Your task to perform on an android device: find photos in the google photos app Image 0: 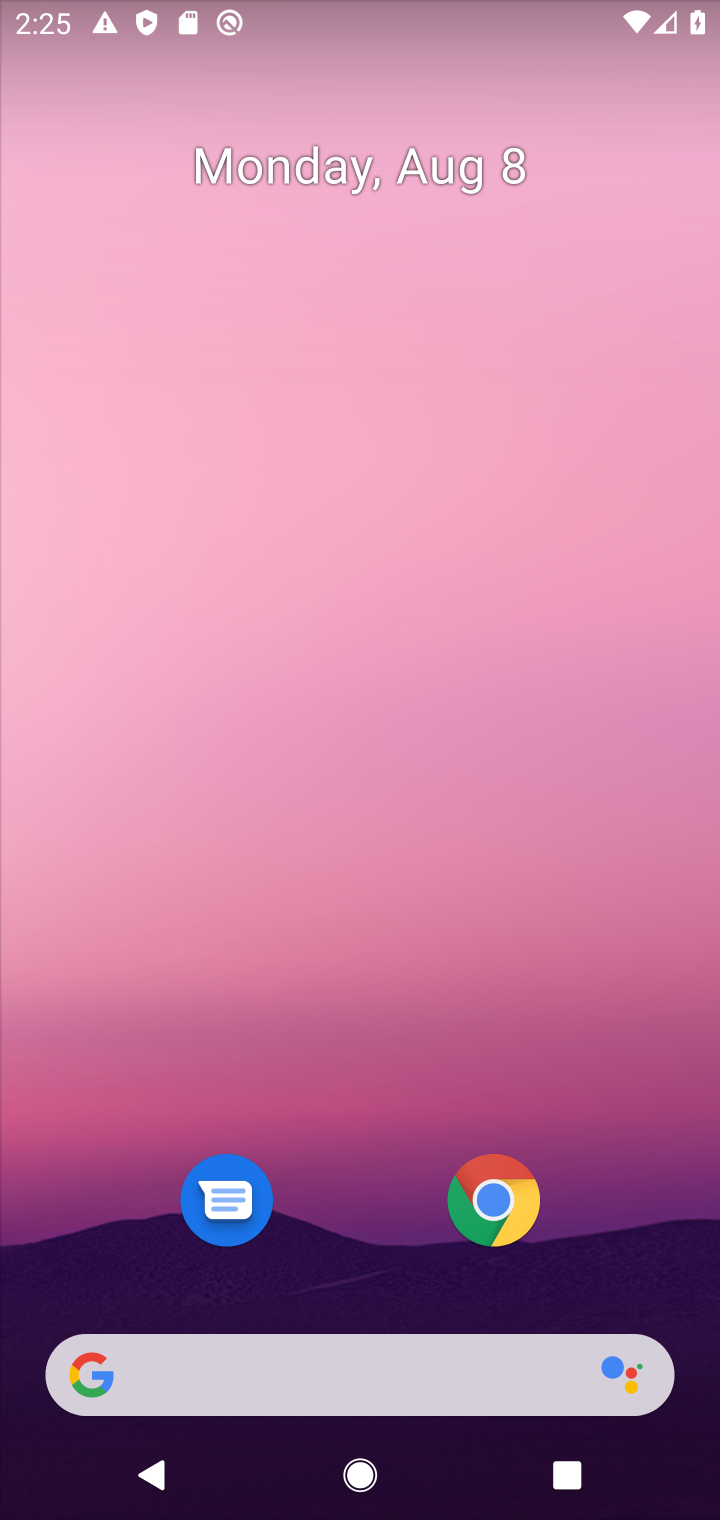
Step 0: drag from (382, 956) to (492, 80)
Your task to perform on an android device: find photos in the google photos app Image 1: 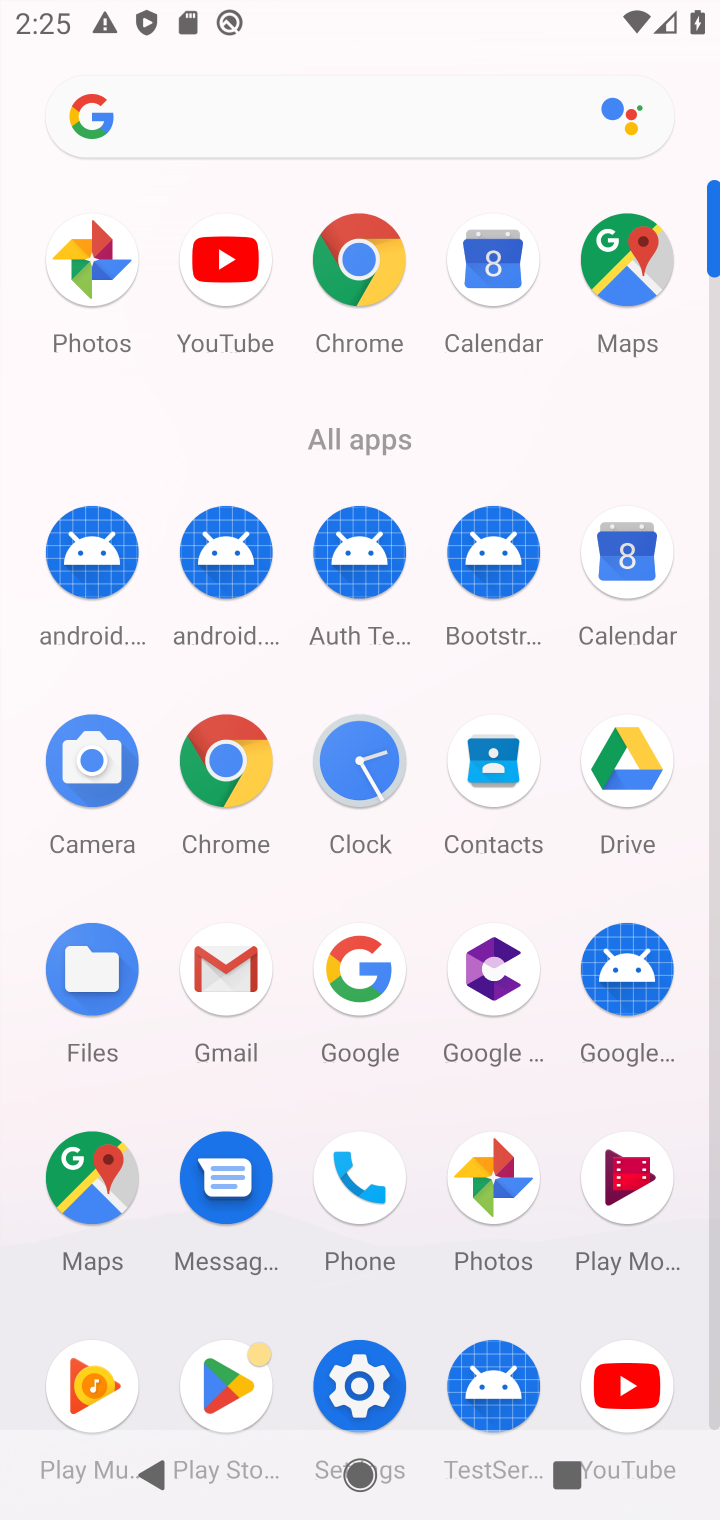
Step 1: click (475, 1190)
Your task to perform on an android device: find photos in the google photos app Image 2: 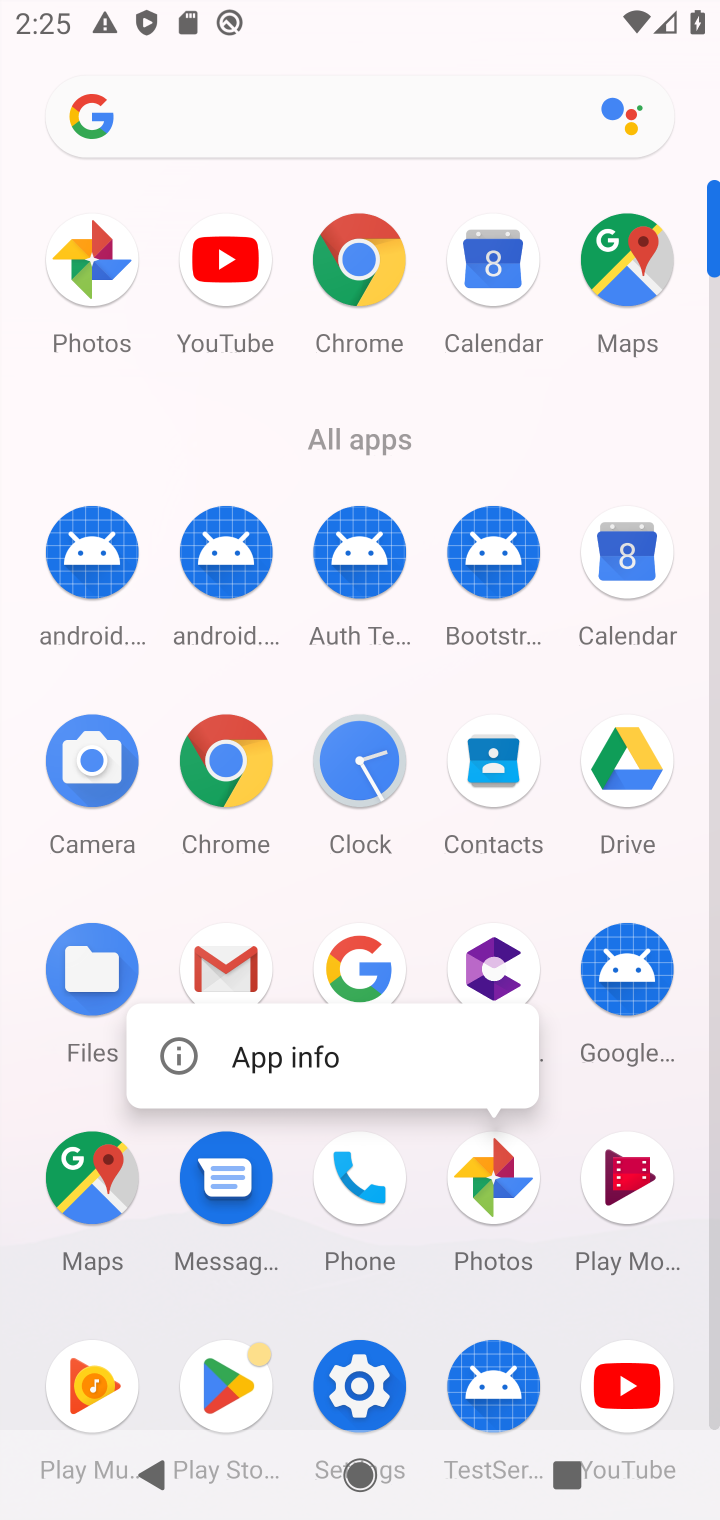
Step 2: click (497, 1179)
Your task to perform on an android device: find photos in the google photos app Image 3: 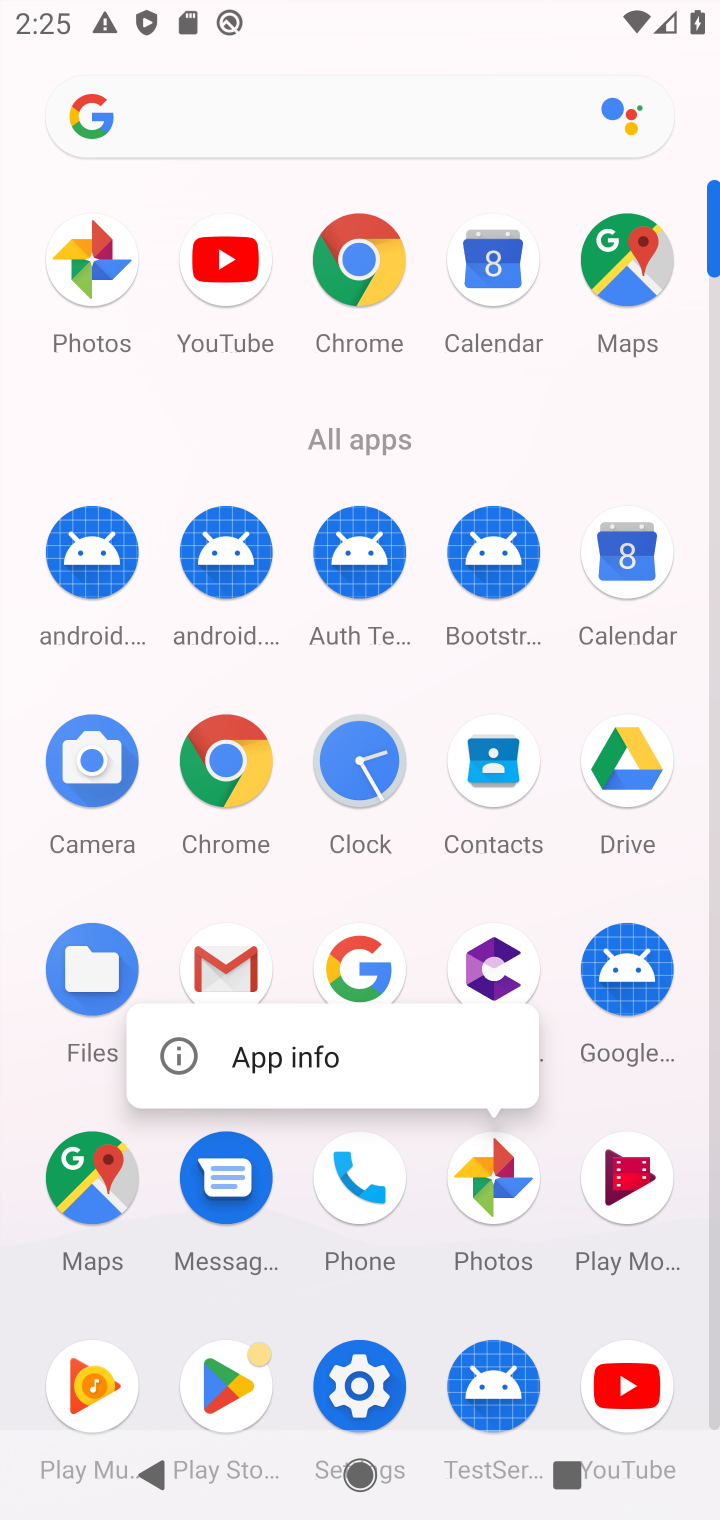
Step 3: click (490, 1177)
Your task to perform on an android device: find photos in the google photos app Image 4: 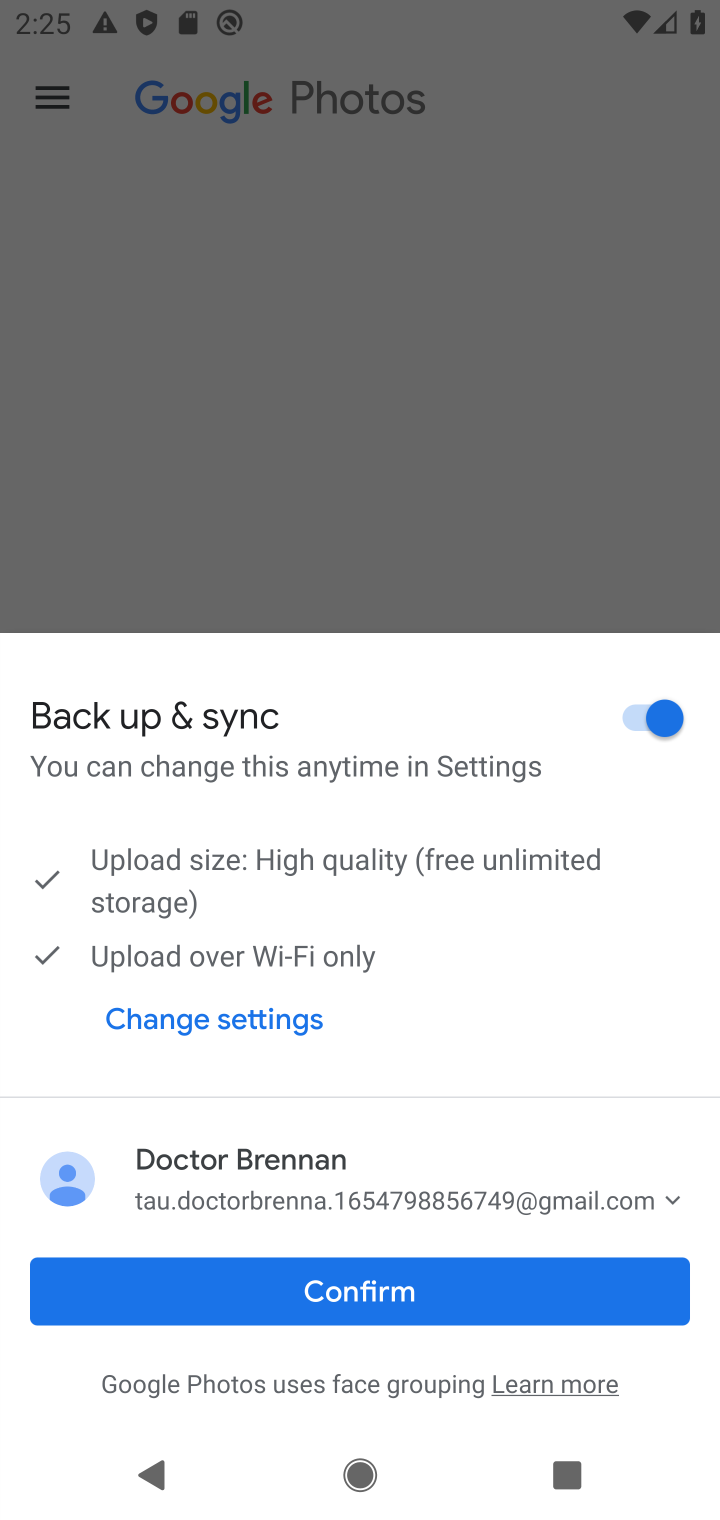
Step 4: click (340, 1267)
Your task to perform on an android device: find photos in the google photos app Image 5: 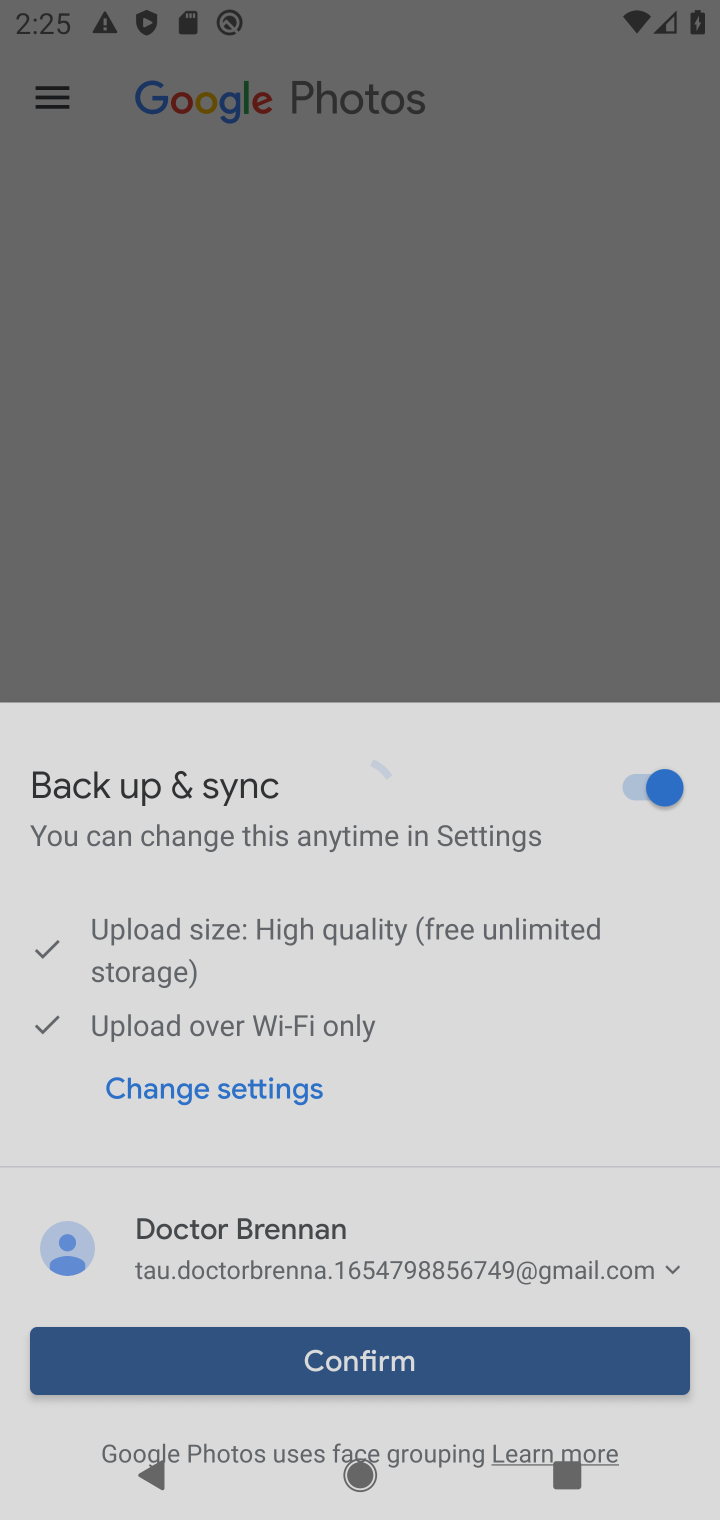
Step 5: click (357, 1289)
Your task to perform on an android device: find photos in the google photos app Image 6: 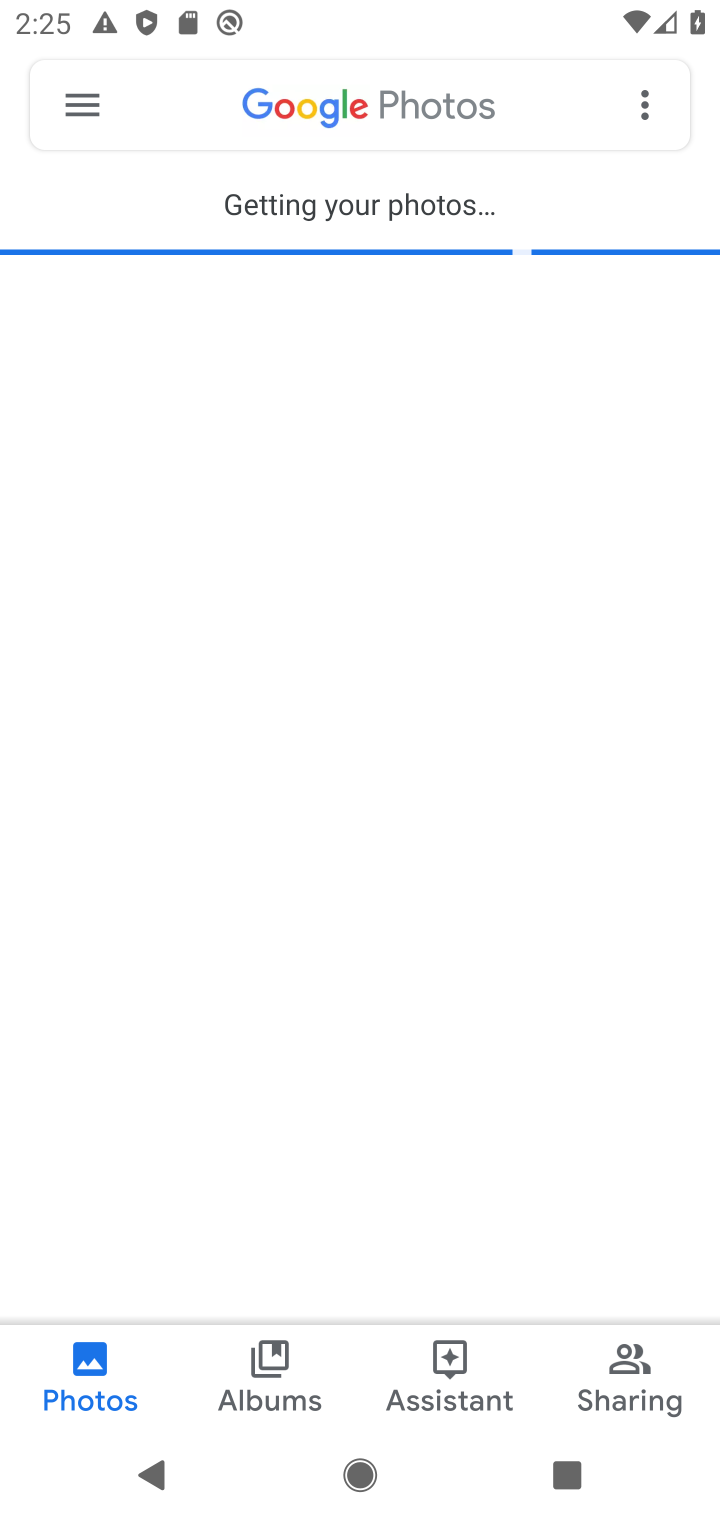
Step 6: click (117, 1389)
Your task to perform on an android device: find photos in the google photos app Image 7: 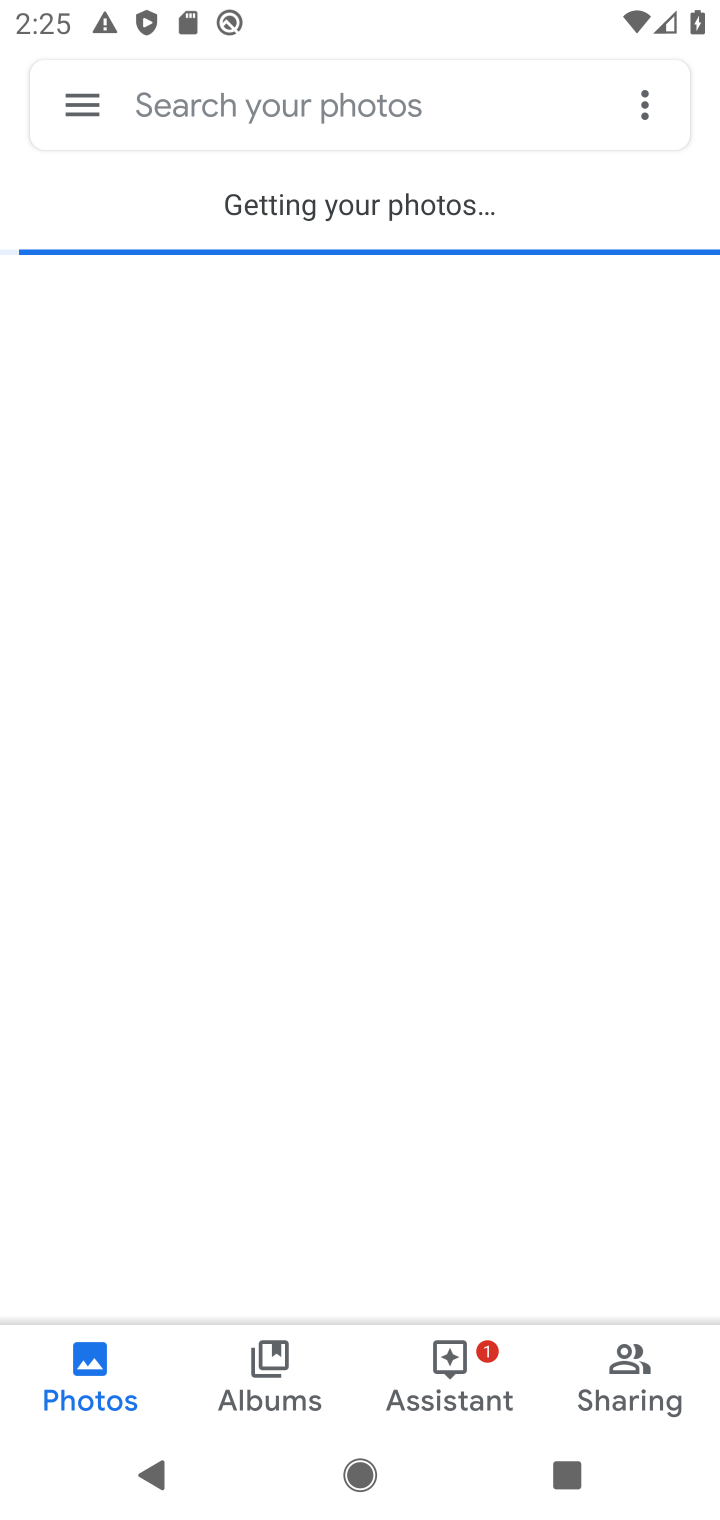
Step 7: task complete